Your task to perform on an android device: Open Google Chrome and open the bookmarks view Image 0: 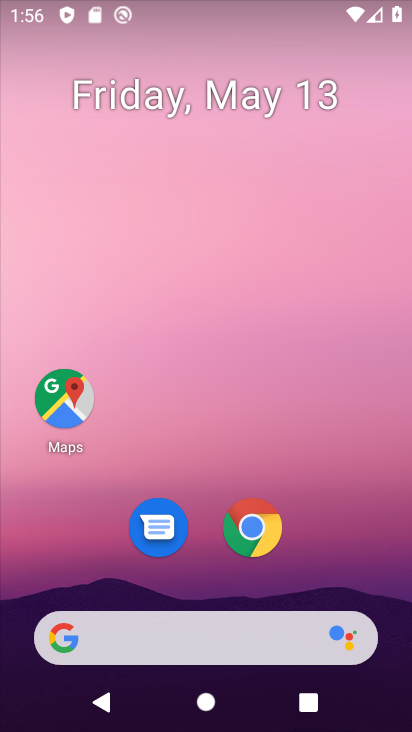
Step 0: drag from (353, 549) to (342, 147)
Your task to perform on an android device: Open Google Chrome and open the bookmarks view Image 1: 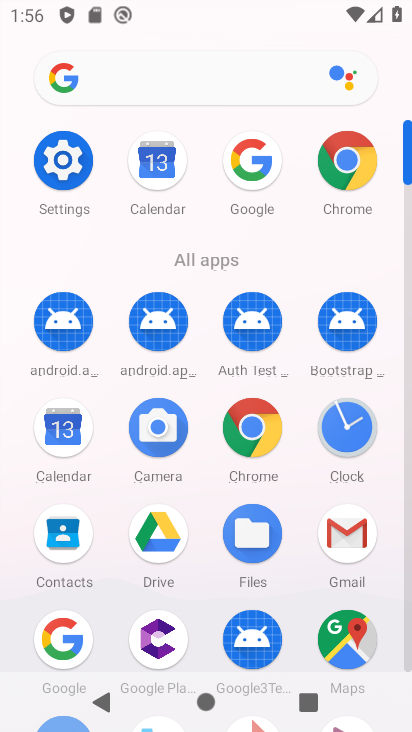
Step 1: click (252, 436)
Your task to perform on an android device: Open Google Chrome and open the bookmarks view Image 2: 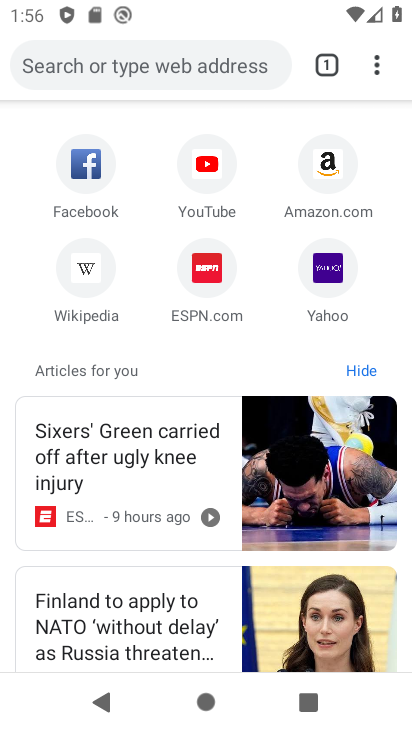
Step 2: task complete